Your task to perform on an android device: Search for "usb-a" on bestbuy.com, select the first entry, add it to the cart, then select checkout. Image 0: 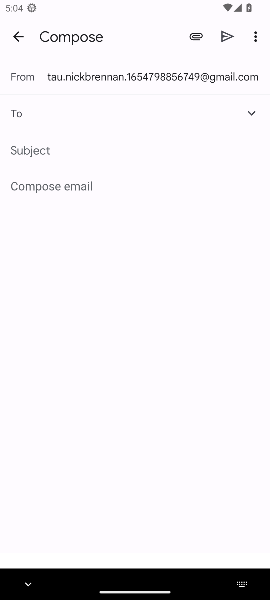
Step 0: drag from (263, 538) to (240, 191)
Your task to perform on an android device: Search for "usb-a" on bestbuy.com, select the first entry, add it to the cart, then select checkout. Image 1: 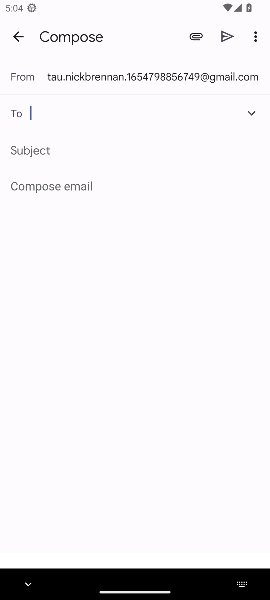
Step 1: drag from (129, 597) to (132, 248)
Your task to perform on an android device: Search for "usb-a" on bestbuy.com, select the first entry, add it to the cart, then select checkout. Image 2: 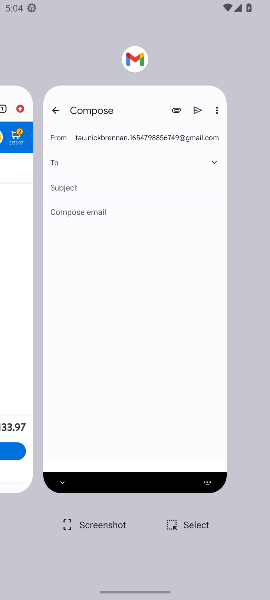
Step 2: drag from (22, 327) to (251, 330)
Your task to perform on an android device: Search for "usb-a" on bestbuy.com, select the first entry, add it to the cart, then select checkout. Image 3: 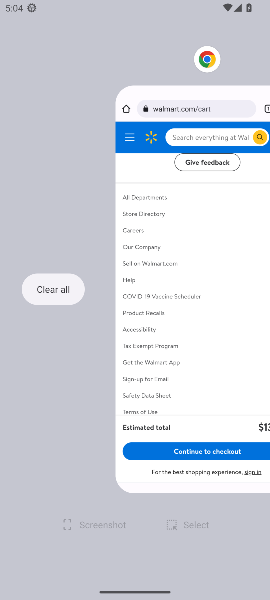
Step 3: drag from (13, 337) to (247, 327)
Your task to perform on an android device: Search for "usb-a" on bestbuy.com, select the first entry, add it to the cart, then select checkout. Image 4: 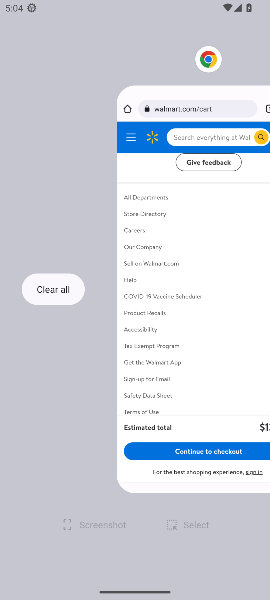
Step 4: click (37, 289)
Your task to perform on an android device: Search for "usb-a" on bestbuy.com, select the first entry, add it to the cart, then select checkout. Image 5: 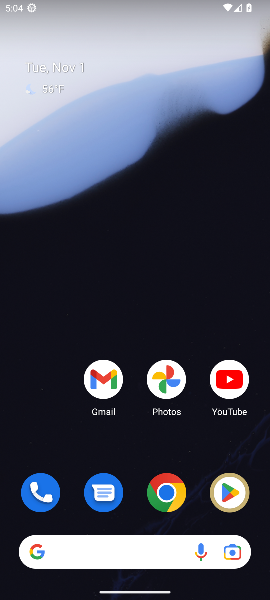
Step 5: click (171, 502)
Your task to perform on an android device: Search for "usb-a" on bestbuy.com, select the first entry, add it to the cart, then select checkout. Image 6: 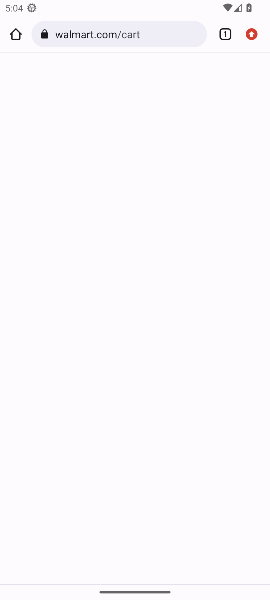
Step 6: click (123, 32)
Your task to perform on an android device: Search for "usb-a" on bestbuy.com, select the first entry, add it to the cart, then select checkout. Image 7: 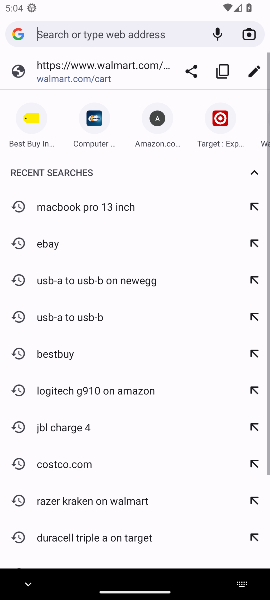
Step 7: click (12, 128)
Your task to perform on an android device: Search for "usb-a" on bestbuy.com, select the first entry, add it to the cart, then select checkout. Image 8: 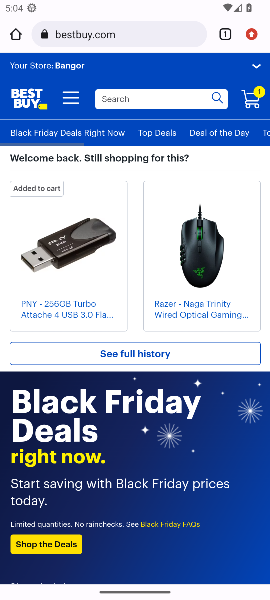
Step 8: click (173, 100)
Your task to perform on an android device: Search for "usb-a" on bestbuy.com, select the first entry, add it to the cart, then select checkout. Image 9: 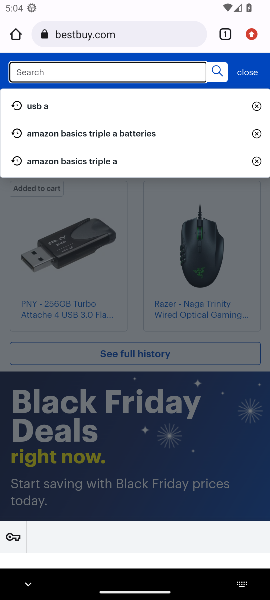
Step 9: click (28, 98)
Your task to perform on an android device: Search for "usb-a" on bestbuy.com, select the first entry, add it to the cart, then select checkout. Image 10: 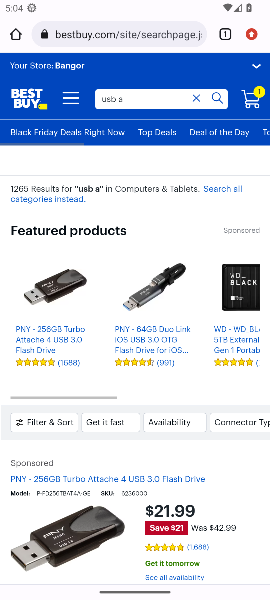
Step 10: drag from (221, 468) to (167, 286)
Your task to perform on an android device: Search for "usb-a" on bestbuy.com, select the first entry, add it to the cart, then select checkout. Image 11: 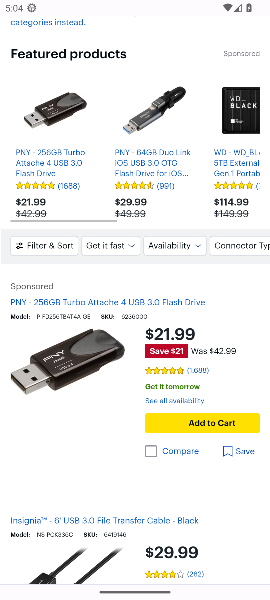
Step 11: click (202, 430)
Your task to perform on an android device: Search for "usb-a" on bestbuy.com, select the first entry, add it to the cart, then select checkout. Image 12: 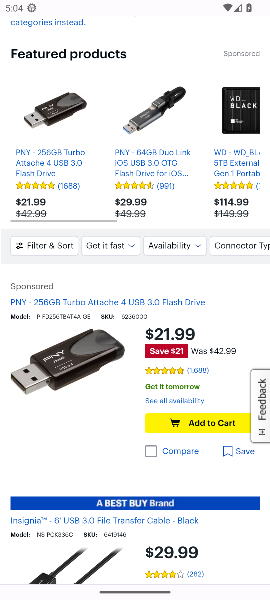
Step 12: click (200, 422)
Your task to perform on an android device: Search for "usb-a" on bestbuy.com, select the first entry, add it to the cart, then select checkout. Image 13: 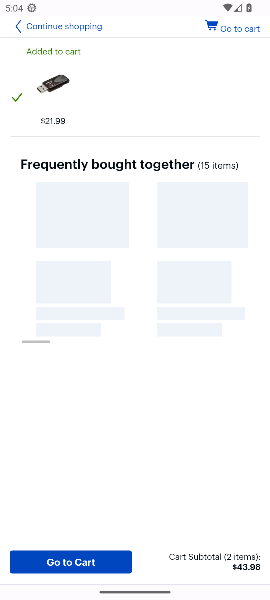
Step 13: click (232, 29)
Your task to perform on an android device: Search for "usb-a" on bestbuy.com, select the first entry, add it to the cart, then select checkout. Image 14: 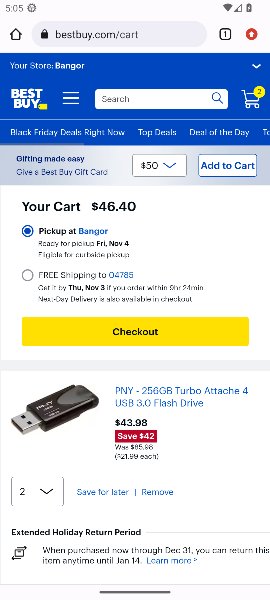
Step 14: drag from (210, 459) to (227, 224)
Your task to perform on an android device: Search for "usb-a" on bestbuy.com, select the first entry, add it to the cart, then select checkout. Image 15: 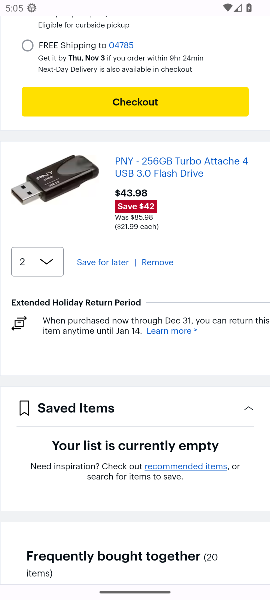
Step 15: click (163, 106)
Your task to perform on an android device: Search for "usb-a" on bestbuy.com, select the first entry, add it to the cart, then select checkout. Image 16: 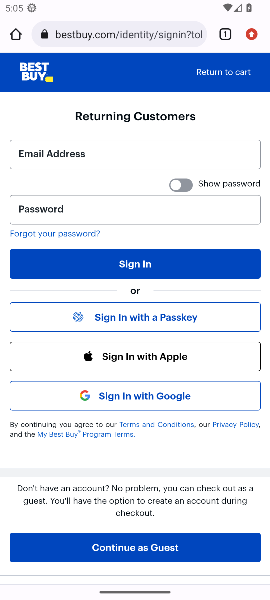
Step 16: task complete